Your task to perform on an android device: change text size in settings app Image 0: 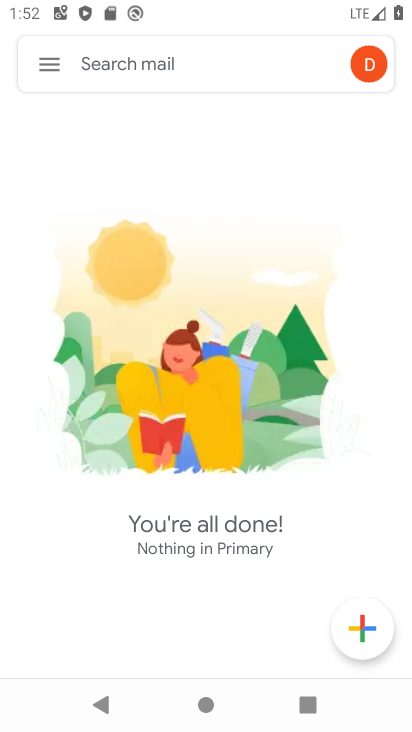
Step 0: press home button
Your task to perform on an android device: change text size in settings app Image 1: 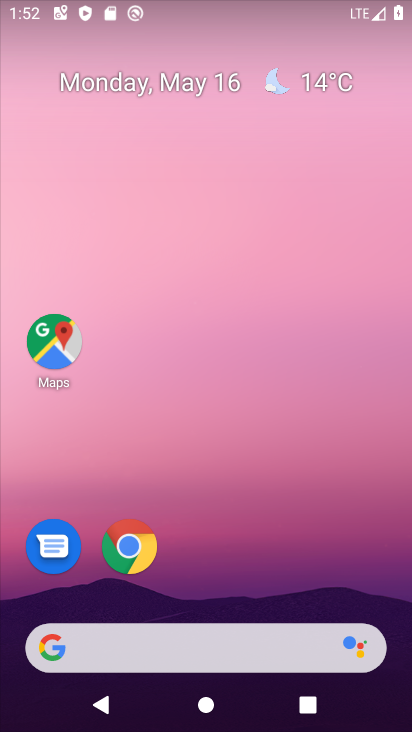
Step 1: drag from (204, 672) to (186, 164)
Your task to perform on an android device: change text size in settings app Image 2: 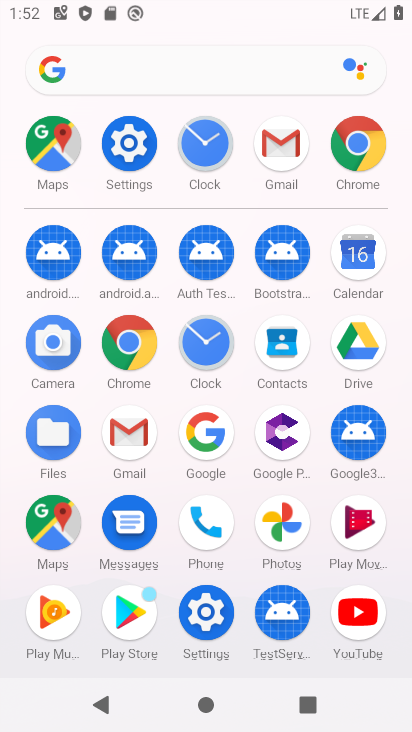
Step 2: click (131, 166)
Your task to perform on an android device: change text size in settings app Image 3: 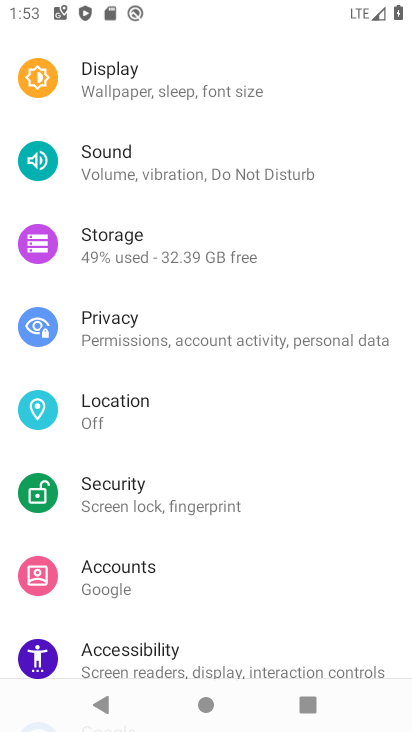
Step 3: drag from (154, 98) to (187, 305)
Your task to perform on an android device: change text size in settings app Image 4: 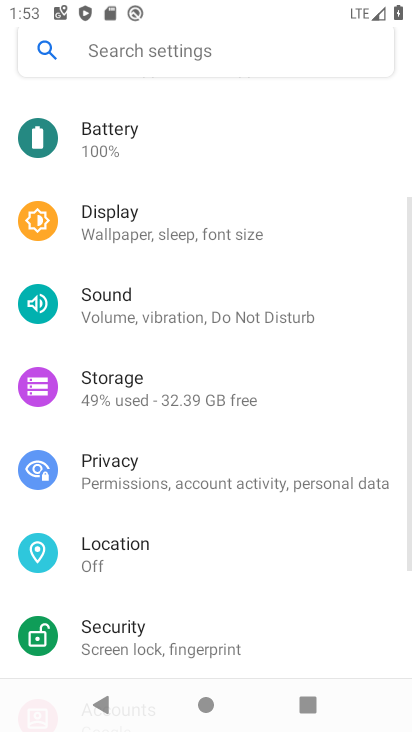
Step 4: click (110, 76)
Your task to perform on an android device: change text size in settings app Image 5: 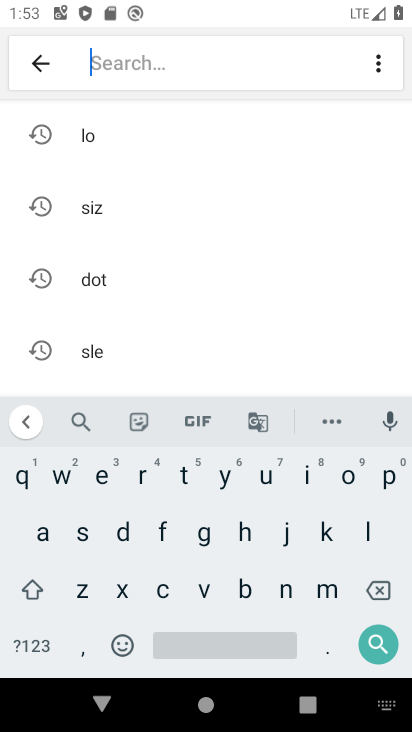
Step 5: click (136, 208)
Your task to perform on an android device: change text size in settings app Image 6: 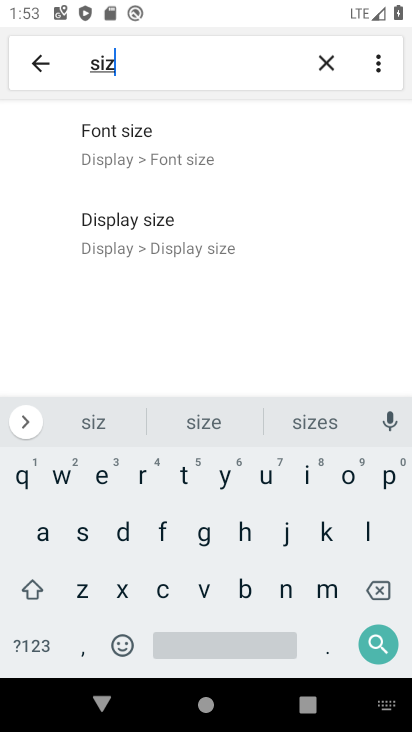
Step 6: click (157, 133)
Your task to perform on an android device: change text size in settings app Image 7: 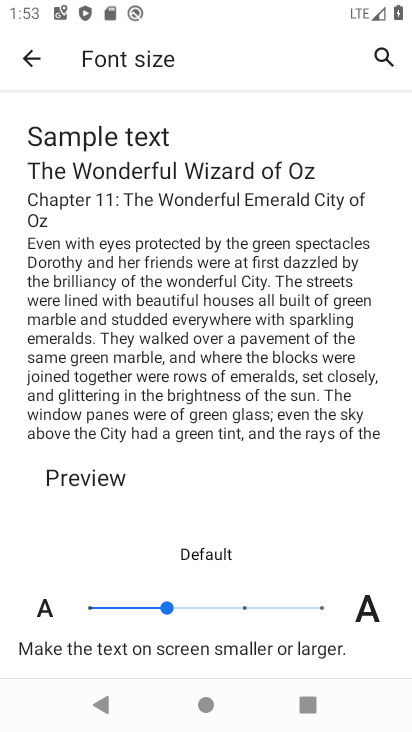
Step 7: click (235, 602)
Your task to perform on an android device: change text size in settings app Image 8: 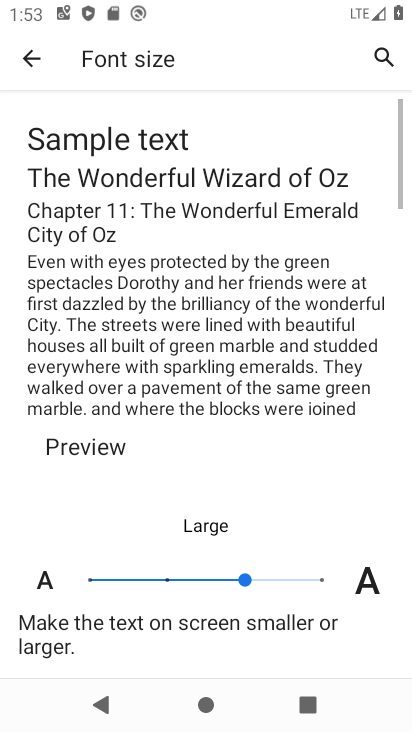
Step 8: task complete